Your task to perform on an android device: Open calendar and show me the first week of next month Image 0: 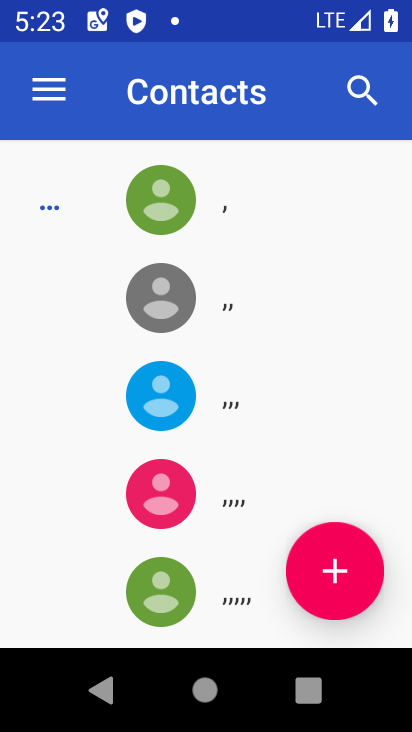
Step 0: press back button
Your task to perform on an android device: Open calendar and show me the first week of next month Image 1: 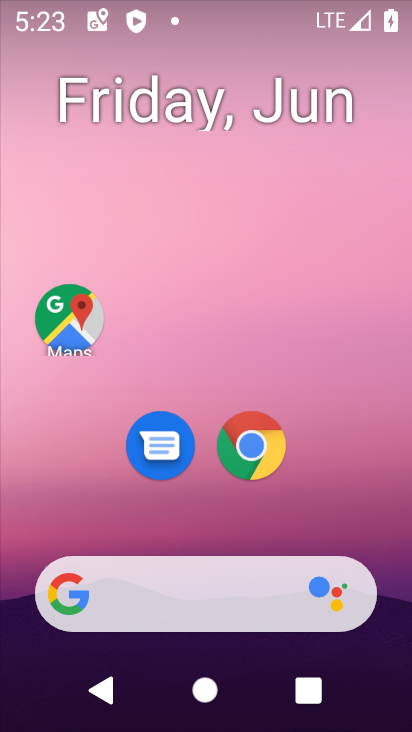
Step 1: drag from (393, 384) to (356, 28)
Your task to perform on an android device: Open calendar and show me the first week of next month Image 2: 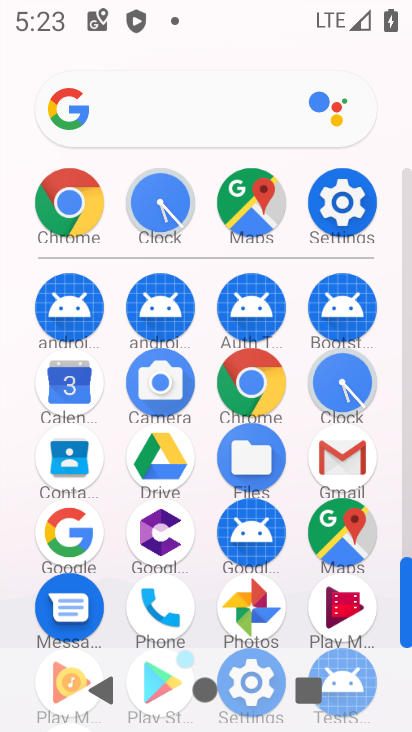
Step 2: click (68, 379)
Your task to perform on an android device: Open calendar and show me the first week of next month Image 3: 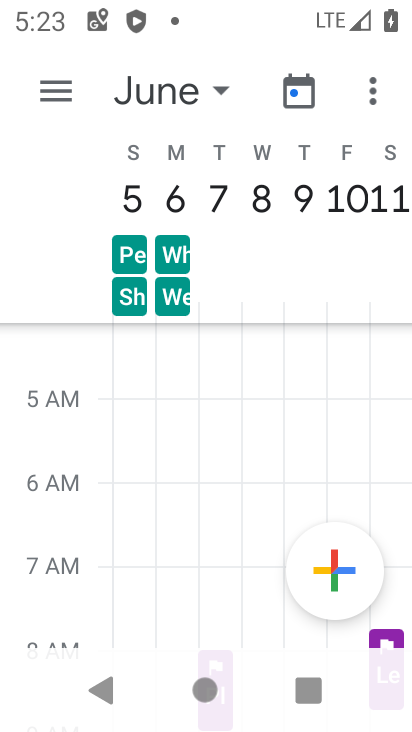
Step 3: click (52, 85)
Your task to perform on an android device: Open calendar and show me the first week of next month Image 4: 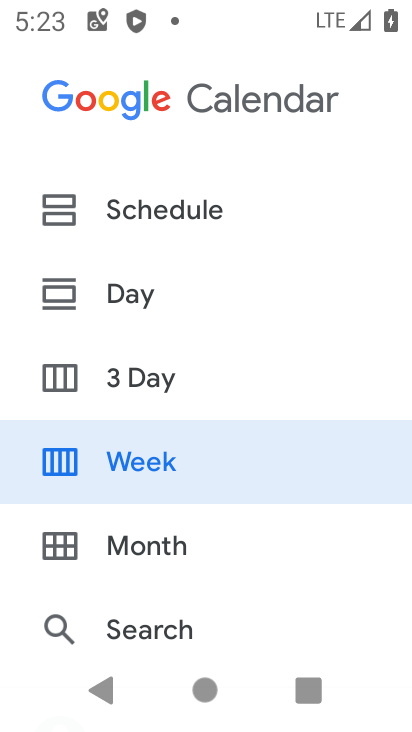
Step 4: click (124, 466)
Your task to perform on an android device: Open calendar and show me the first week of next month Image 5: 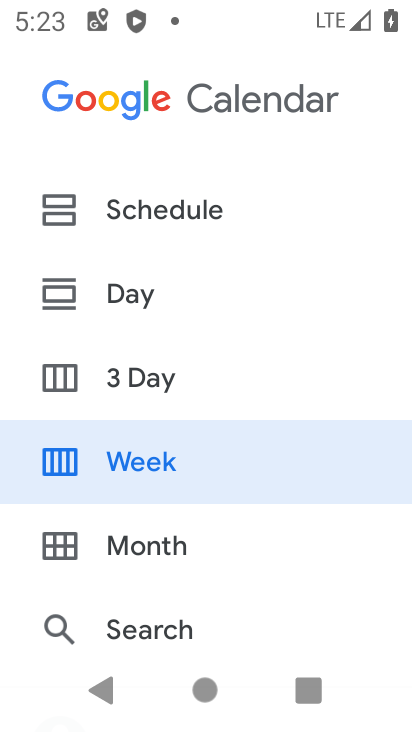
Step 5: click (129, 461)
Your task to perform on an android device: Open calendar and show me the first week of next month Image 6: 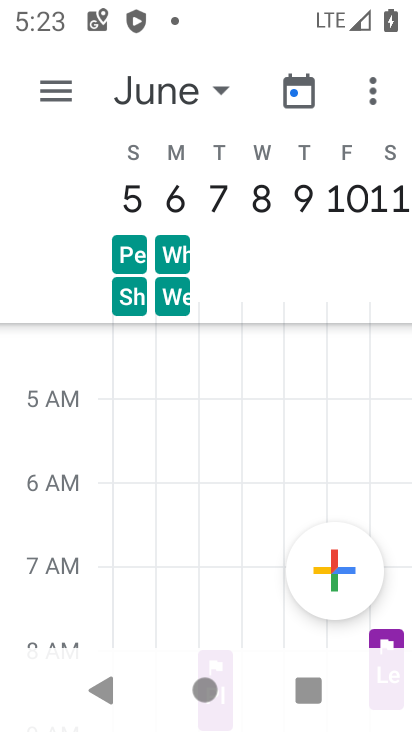
Step 6: click (178, 96)
Your task to perform on an android device: Open calendar and show me the first week of next month Image 7: 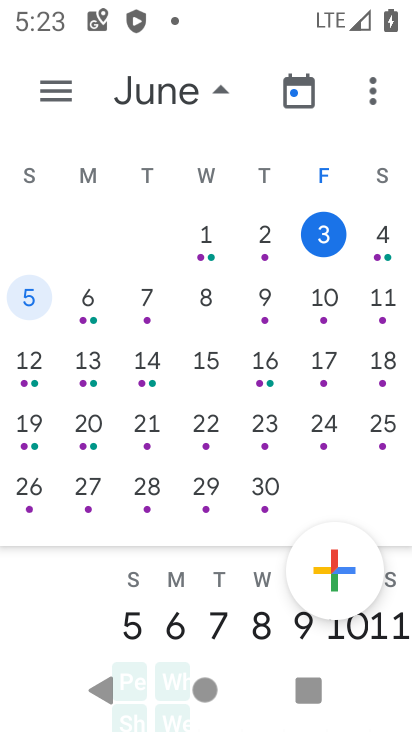
Step 7: drag from (386, 389) to (16, 422)
Your task to perform on an android device: Open calendar and show me the first week of next month Image 8: 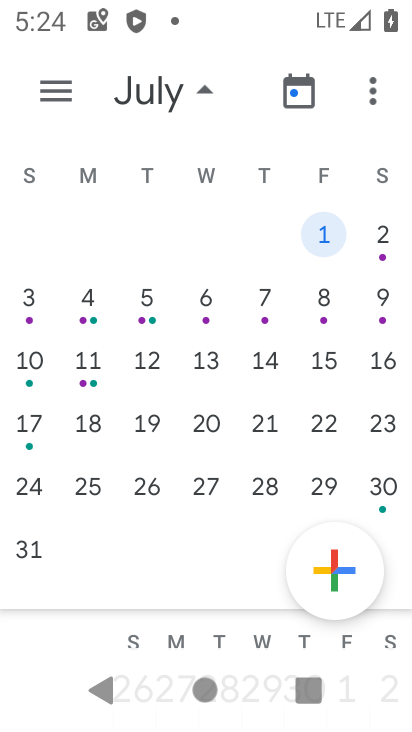
Step 8: click (29, 296)
Your task to perform on an android device: Open calendar and show me the first week of next month Image 9: 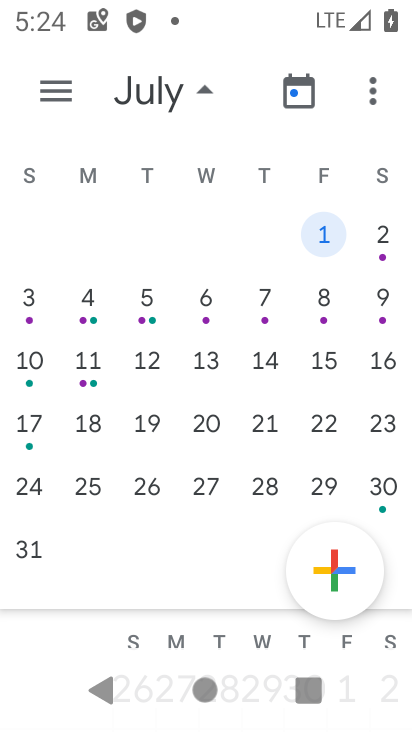
Step 9: click (34, 296)
Your task to perform on an android device: Open calendar and show me the first week of next month Image 10: 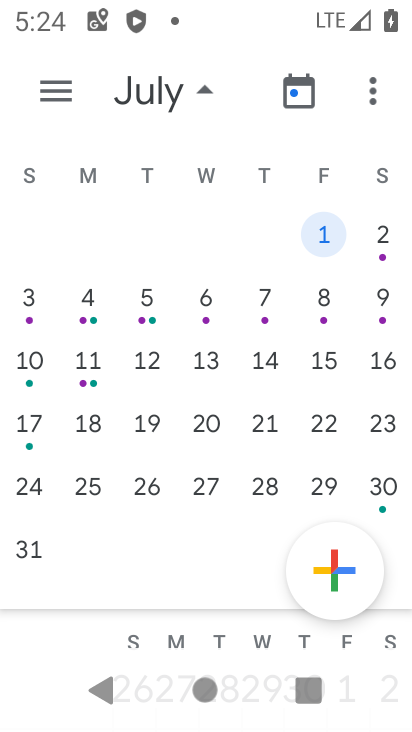
Step 10: click (34, 296)
Your task to perform on an android device: Open calendar and show me the first week of next month Image 11: 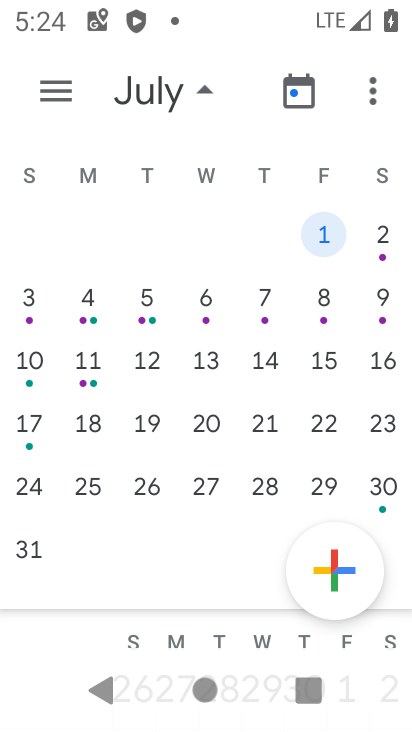
Step 11: click (33, 293)
Your task to perform on an android device: Open calendar and show me the first week of next month Image 12: 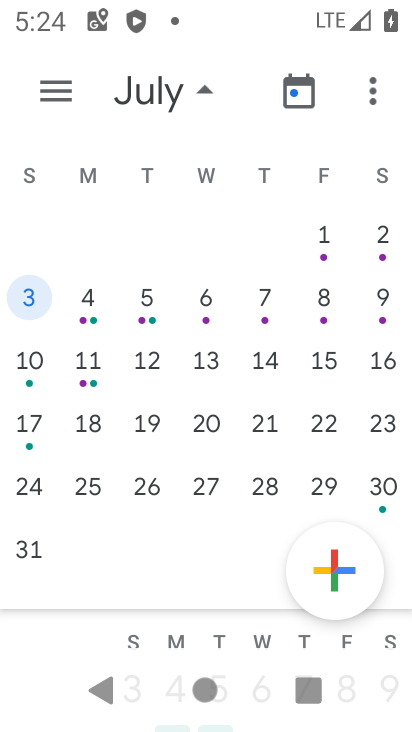
Step 12: click (53, 89)
Your task to perform on an android device: Open calendar and show me the first week of next month Image 13: 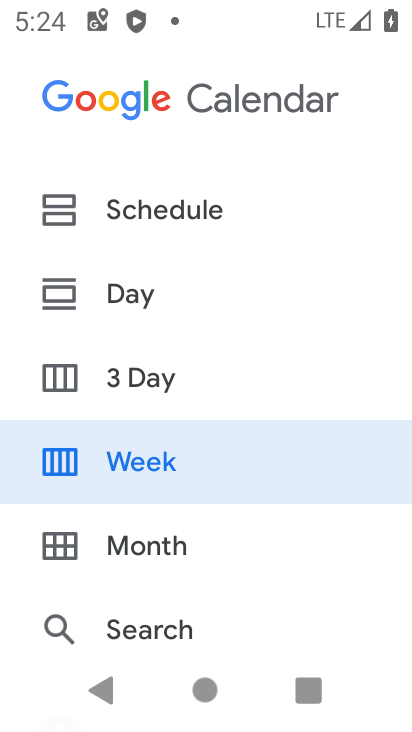
Step 13: click (185, 458)
Your task to perform on an android device: Open calendar and show me the first week of next month Image 14: 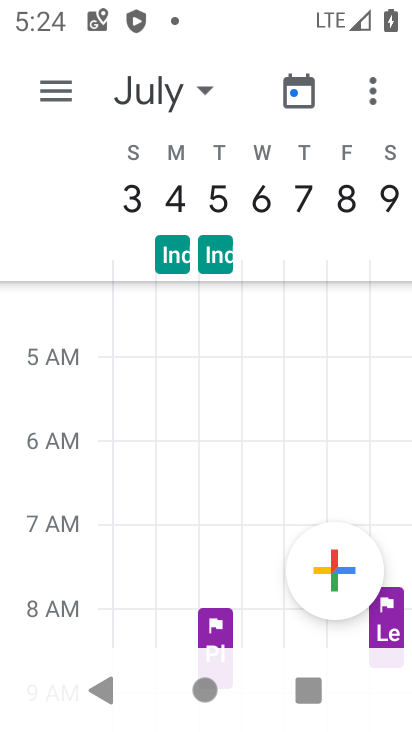
Step 14: task complete